Your task to perform on an android device: Go to location settings Image 0: 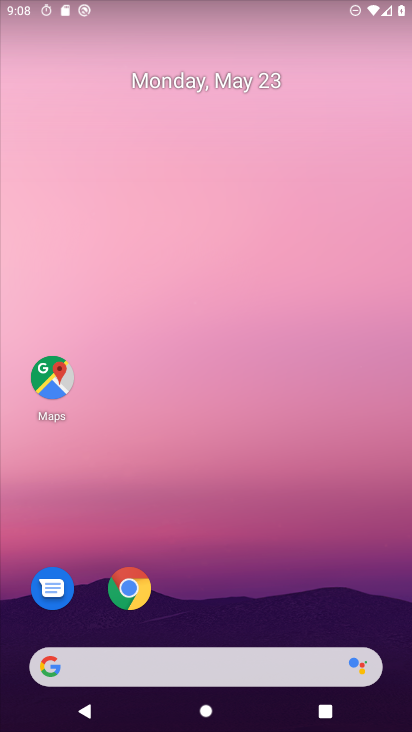
Step 0: drag from (301, 374) to (233, 0)
Your task to perform on an android device: Go to location settings Image 1: 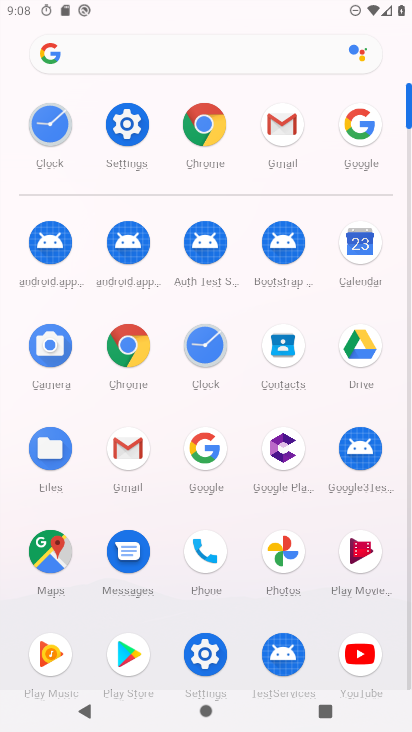
Step 1: click (135, 119)
Your task to perform on an android device: Go to location settings Image 2: 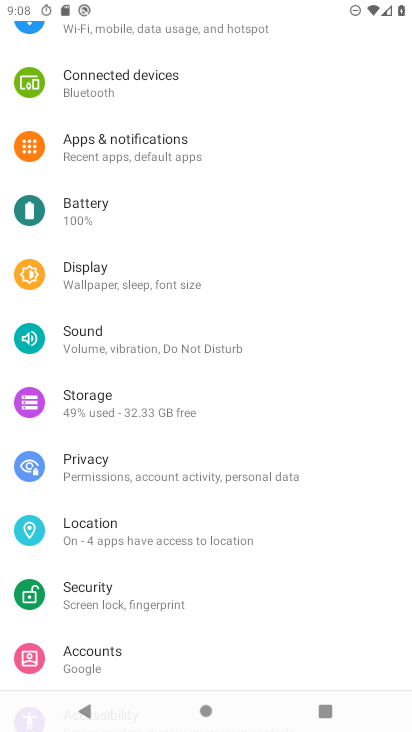
Step 2: click (91, 521)
Your task to perform on an android device: Go to location settings Image 3: 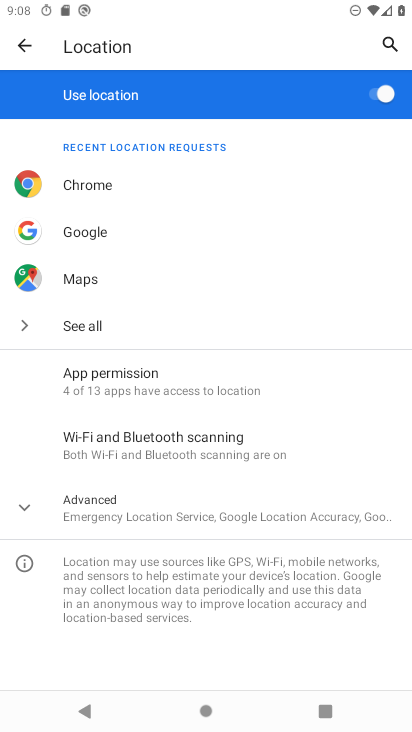
Step 3: drag from (225, 617) to (229, 368)
Your task to perform on an android device: Go to location settings Image 4: 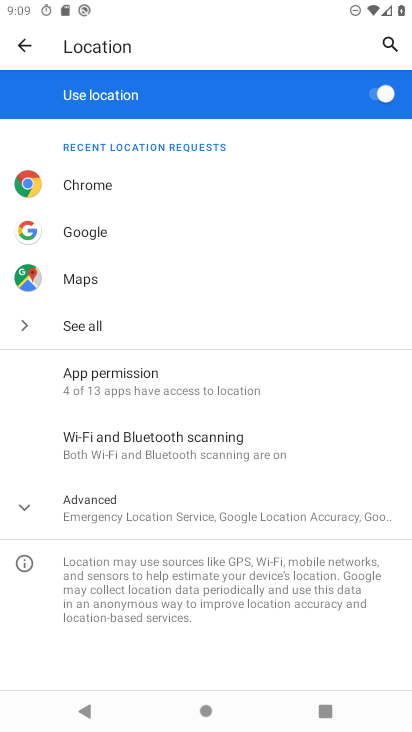
Step 4: click (25, 505)
Your task to perform on an android device: Go to location settings Image 5: 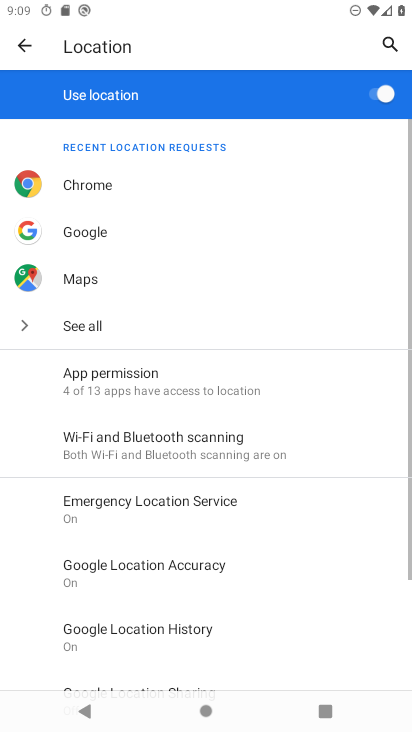
Step 5: task complete